Your task to perform on an android device: open app "TextNow: Call + Text Unlimited" (install if not already installed) Image 0: 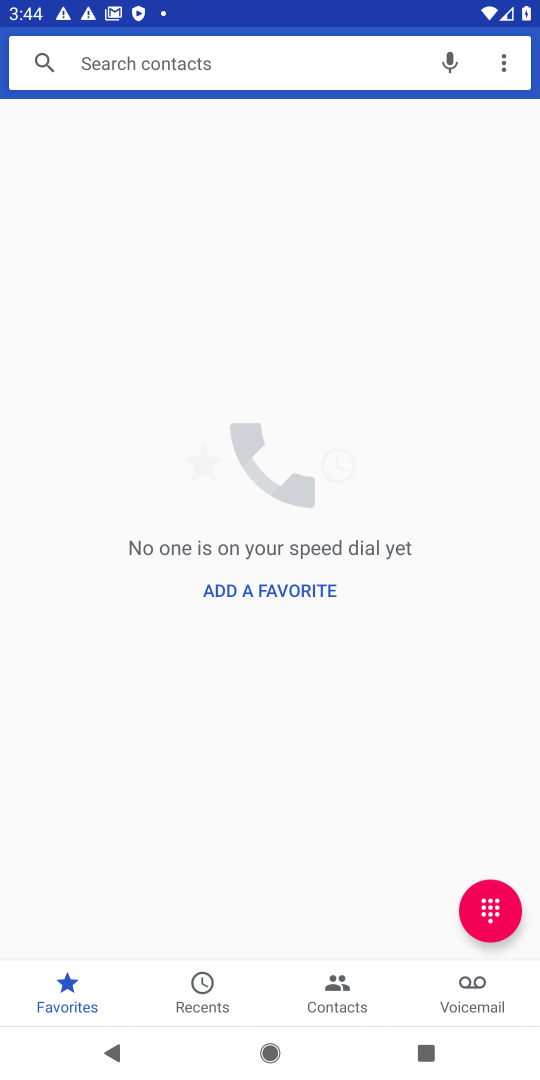
Step 0: press home button
Your task to perform on an android device: open app "TextNow: Call + Text Unlimited" (install if not already installed) Image 1: 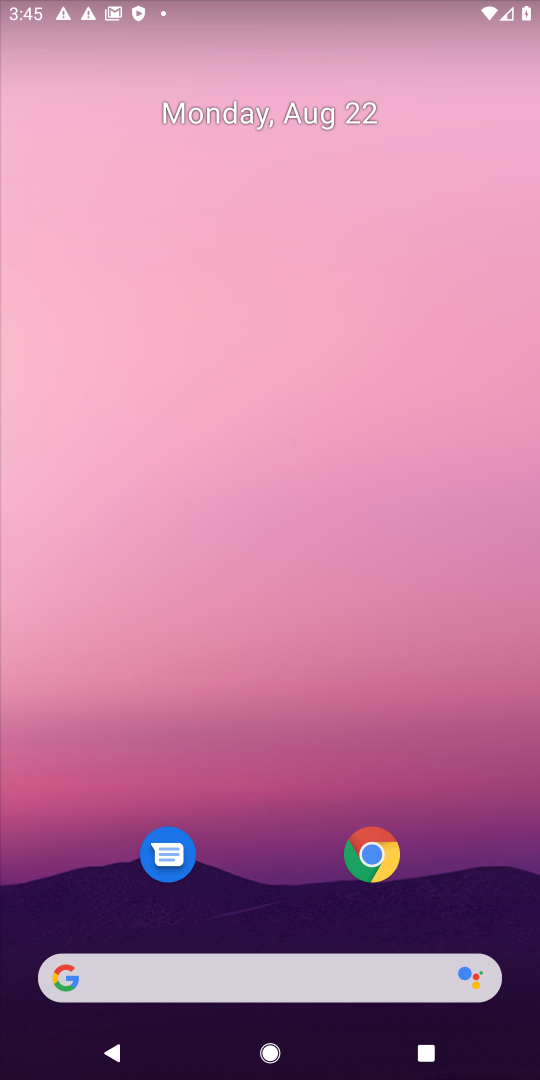
Step 1: drag from (273, 936) to (273, 80)
Your task to perform on an android device: open app "TextNow: Call + Text Unlimited" (install if not already installed) Image 2: 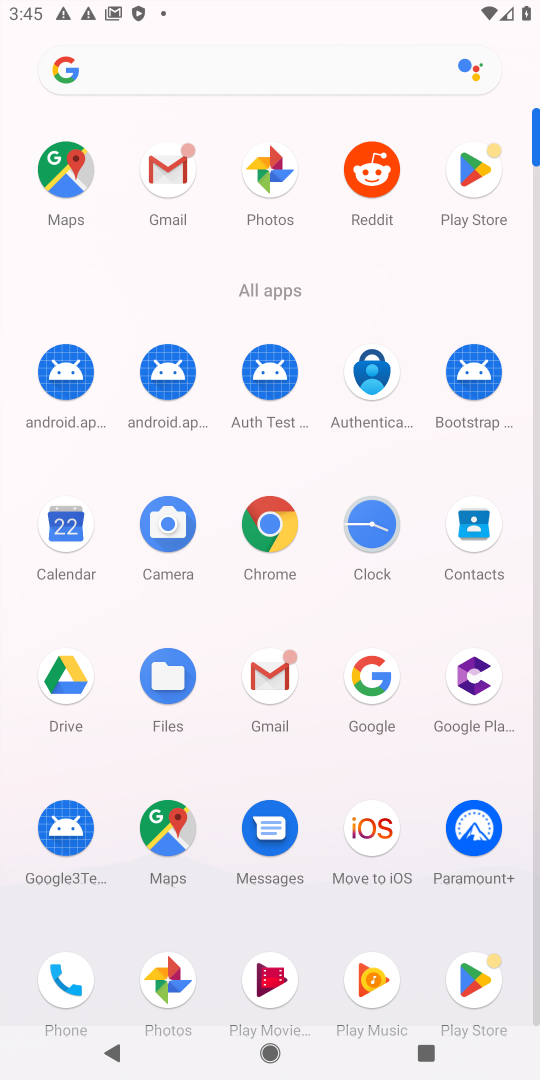
Step 2: click (475, 165)
Your task to perform on an android device: open app "TextNow: Call + Text Unlimited" (install if not already installed) Image 3: 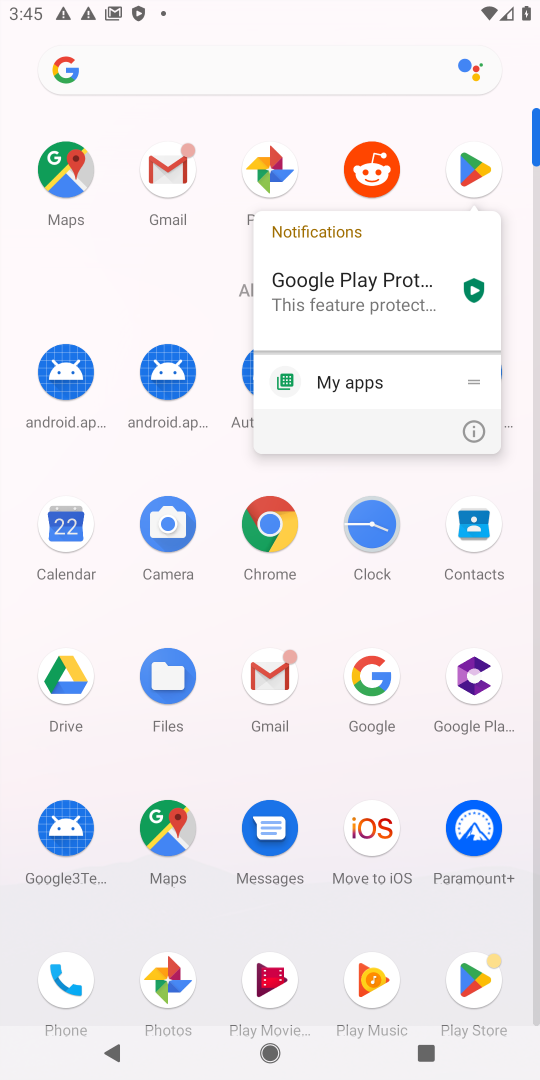
Step 3: click (475, 165)
Your task to perform on an android device: open app "TextNow: Call + Text Unlimited" (install if not already installed) Image 4: 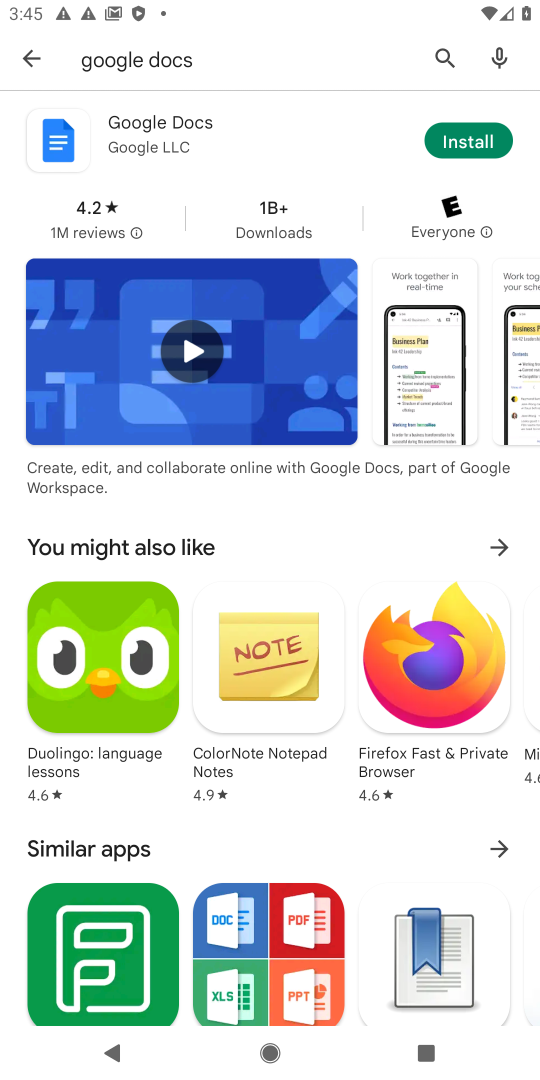
Step 4: click (444, 57)
Your task to perform on an android device: open app "TextNow: Call + Text Unlimited" (install if not already installed) Image 5: 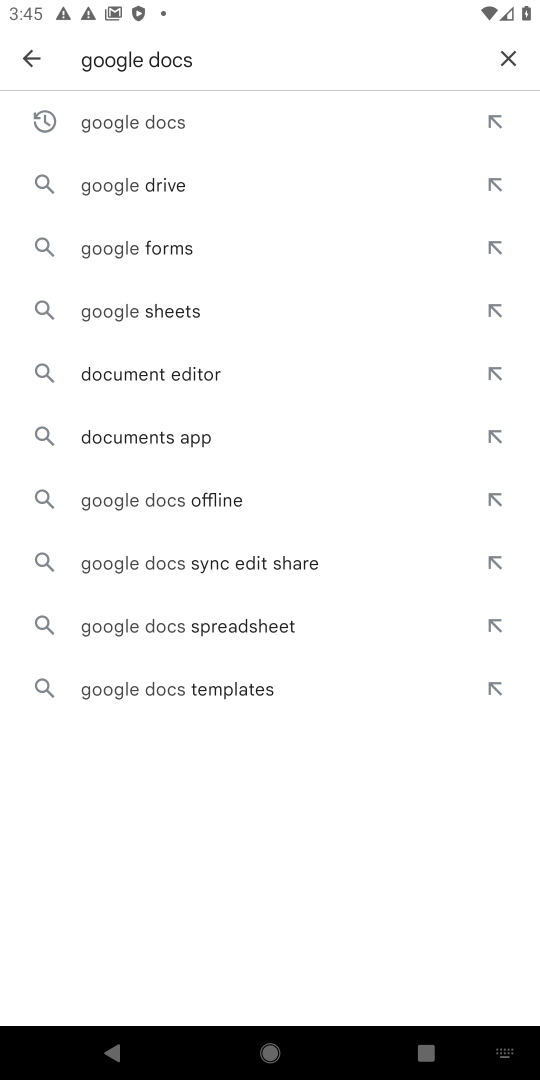
Step 5: click (505, 55)
Your task to perform on an android device: open app "TextNow: Call + Text Unlimited" (install if not already installed) Image 6: 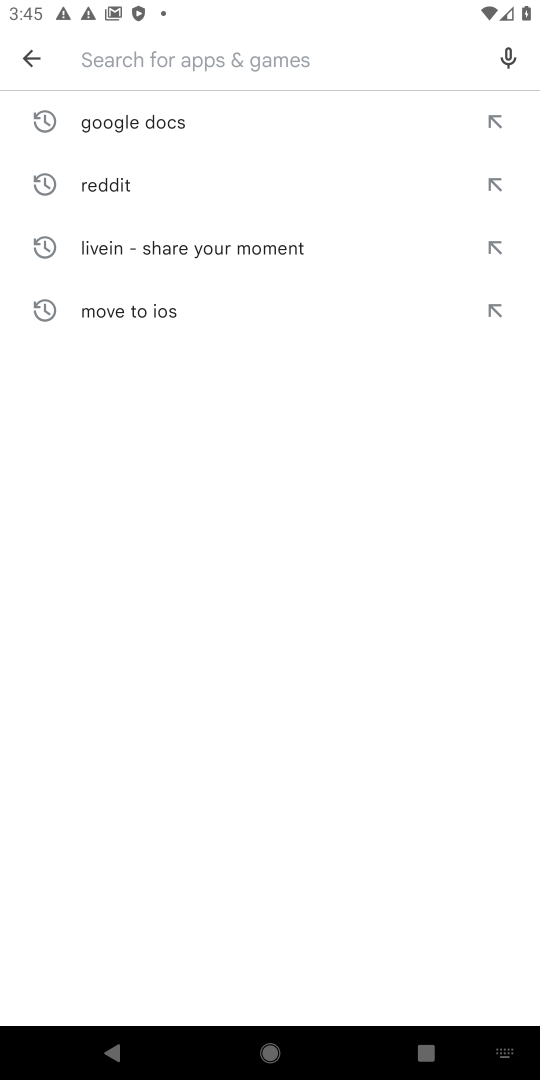
Step 6: type "TextNow: Call + Text Unlimited"
Your task to perform on an android device: open app "TextNow: Call + Text Unlimited" (install if not already installed) Image 7: 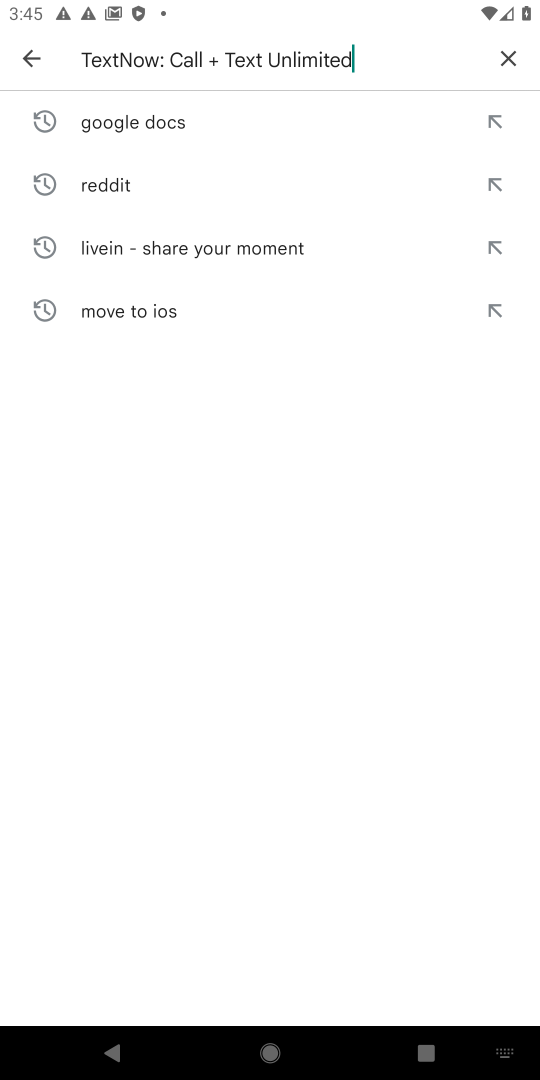
Step 7: type ""
Your task to perform on an android device: open app "TextNow: Call + Text Unlimited" (install if not already installed) Image 8: 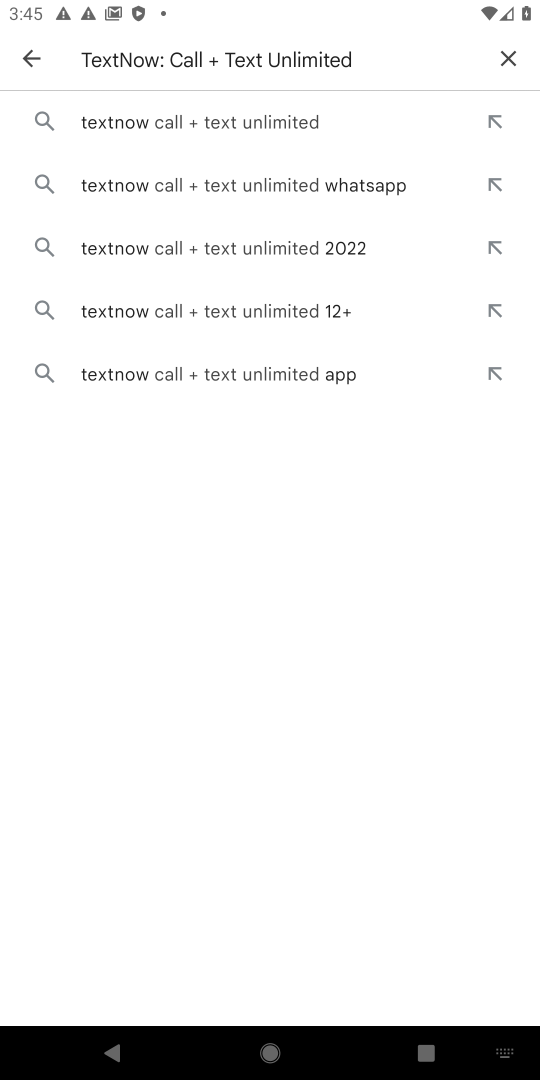
Step 8: click (189, 116)
Your task to perform on an android device: open app "TextNow: Call + Text Unlimited" (install if not already installed) Image 9: 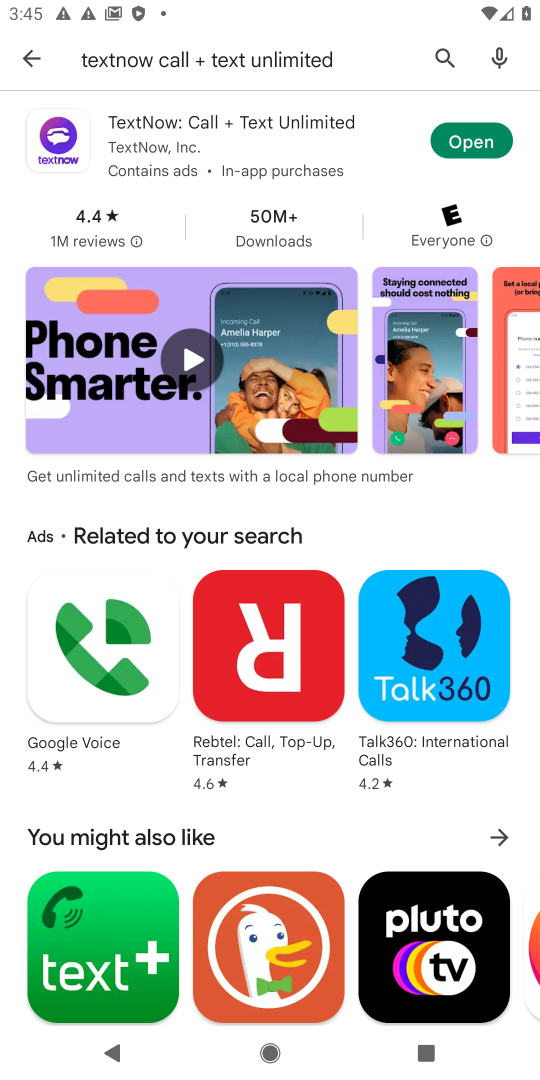
Step 9: click (473, 137)
Your task to perform on an android device: open app "TextNow: Call + Text Unlimited" (install if not already installed) Image 10: 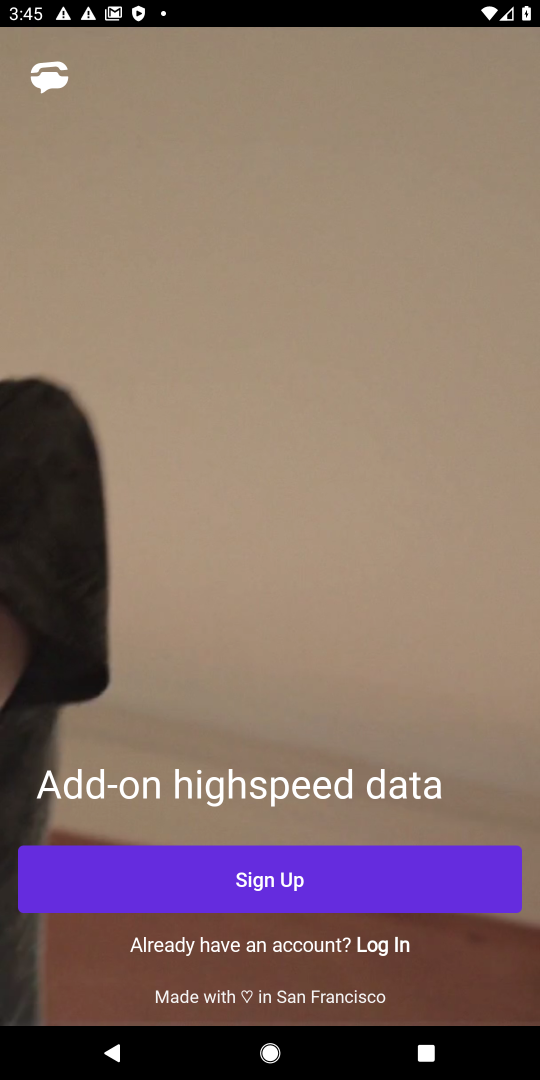
Step 10: task complete